Your task to perform on an android device: remove spam from my inbox in the gmail app Image 0: 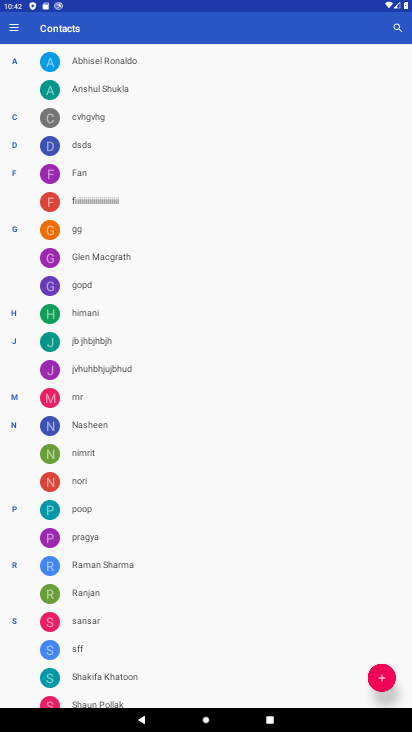
Step 0: press home button
Your task to perform on an android device: remove spam from my inbox in the gmail app Image 1: 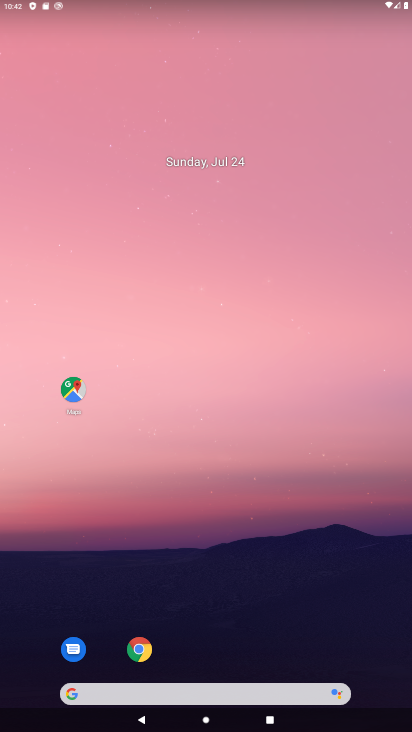
Step 1: drag from (252, 658) to (241, 90)
Your task to perform on an android device: remove spam from my inbox in the gmail app Image 2: 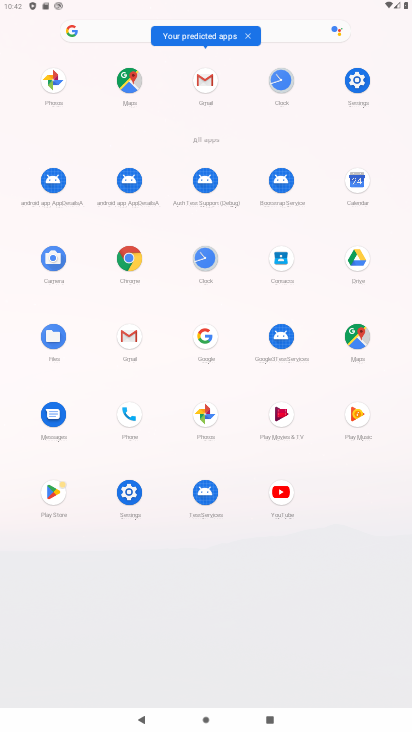
Step 2: click (210, 78)
Your task to perform on an android device: remove spam from my inbox in the gmail app Image 3: 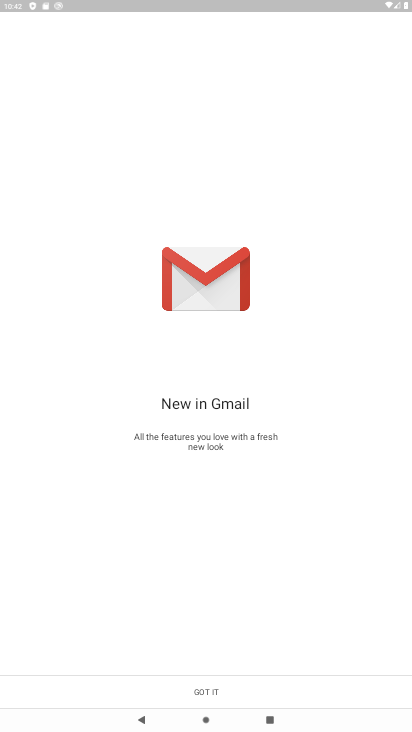
Step 3: click (207, 697)
Your task to perform on an android device: remove spam from my inbox in the gmail app Image 4: 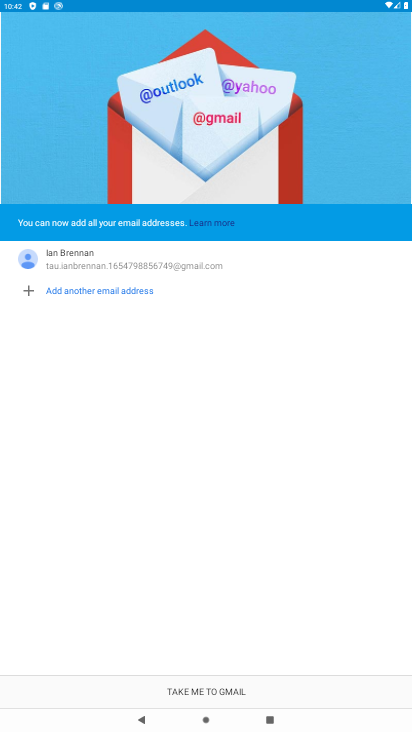
Step 4: click (207, 697)
Your task to perform on an android device: remove spam from my inbox in the gmail app Image 5: 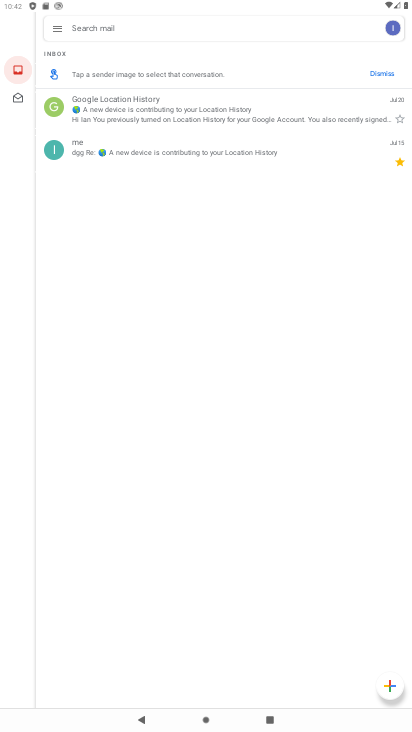
Step 5: click (57, 28)
Your task to perform on an android device: remove spam from my inbox in the gmail app Image 6: 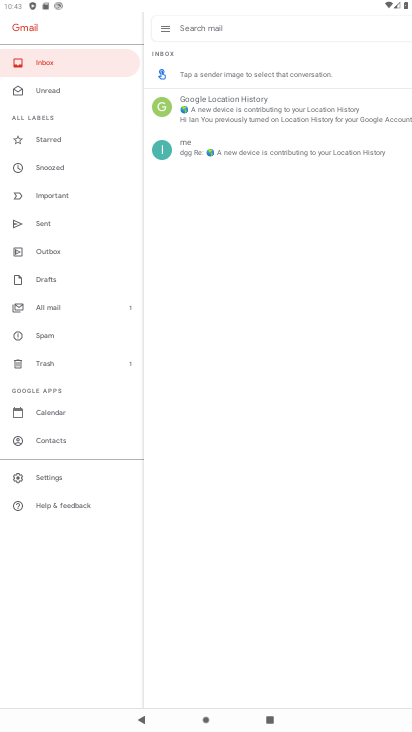
Step 6: click (60, 331)
Your task to perform on an android device: remove spam from my inbox in the gmail app Image 7: 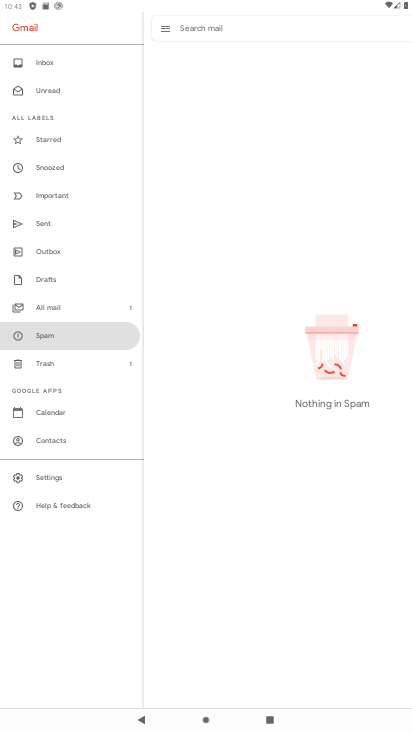
Step 7: task complete